Your task to perform on an android device: turn off translation in the chrome app Image 0: 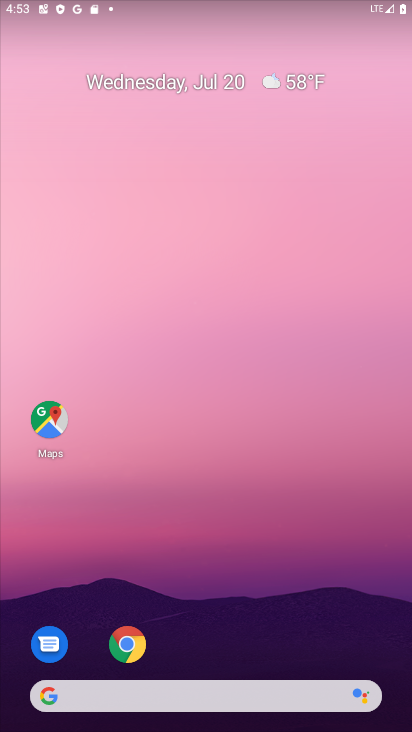
Step 0: drag from (273, 649) to (375, 7)
Your task to perform on an android device: turn off translation in the chrome app Image 1: 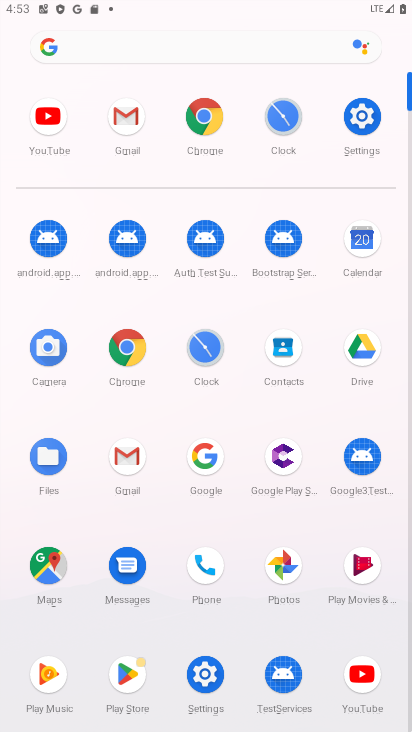
Step 1: click (199, 127)
Your task to perform on an android device: turn off translation in the chrome app Image 2: 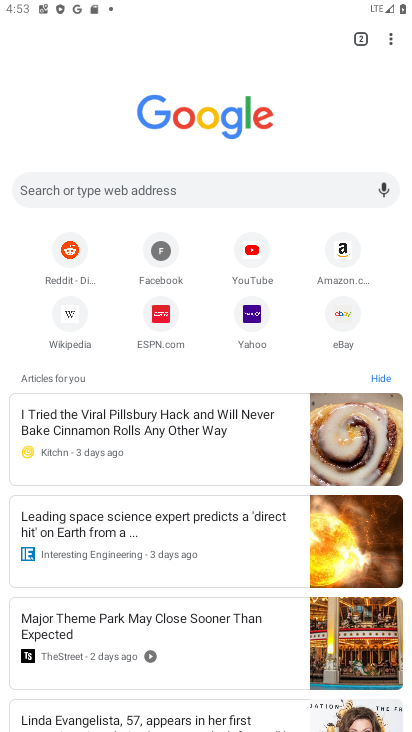
Step 2: drag from (396, 41) to (231, 335)
Your task to perform on an android device: turn off translation in the chrome app Image 3: 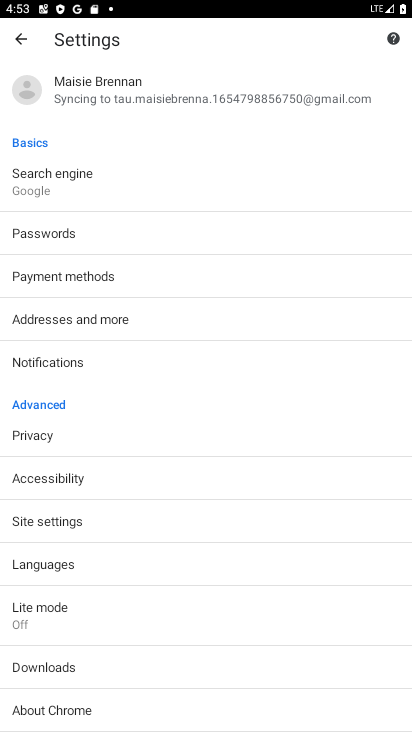
Step 3: click (48, 566)
Your task to perform on an android device: turn off translation in the chrome app Image 4: 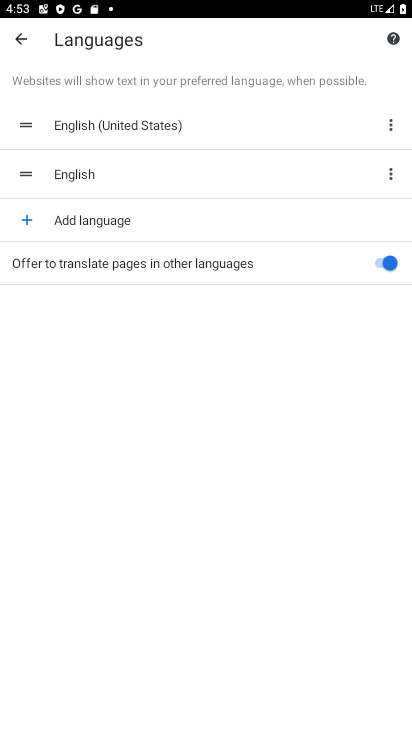
Step 4: click (389, 262)
Your task to perform on an android device: turn off translation in the chrome app Image 5: 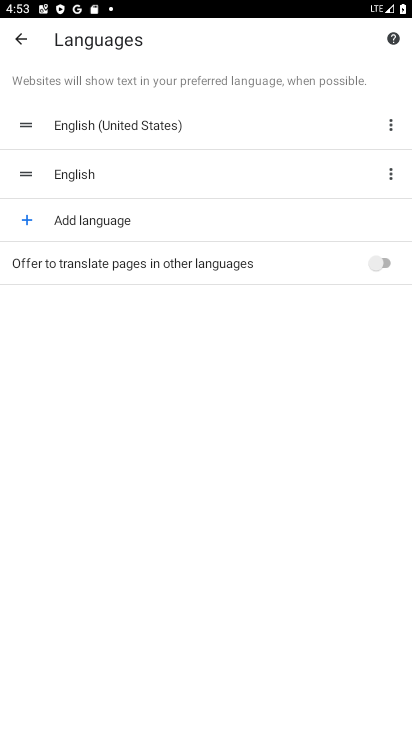
Step 5: task complete